Your task to perform on an android device: Open Amazon Image 0: 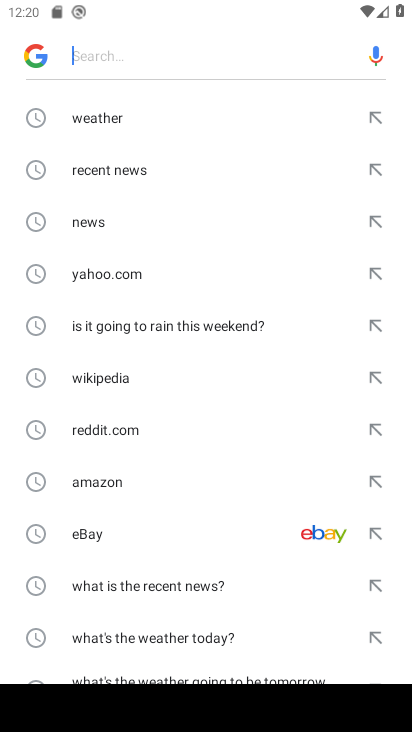
Step 0: press back button
Your task to perform on an android device: Open Amazon Image 1: 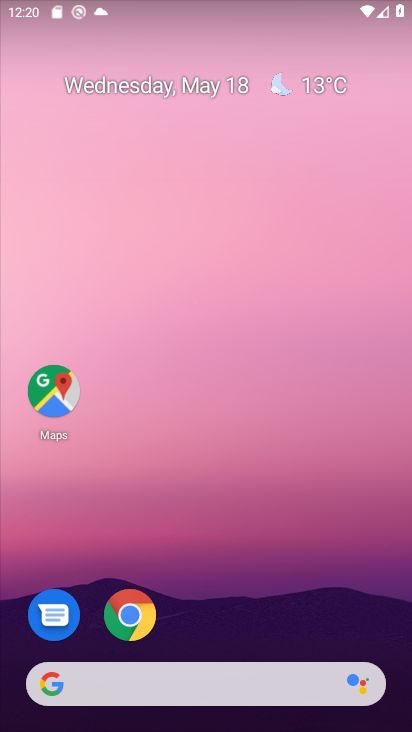
Step 1: click (136, 625)
Your task to perform on an android device: Open Amazon Image 2: 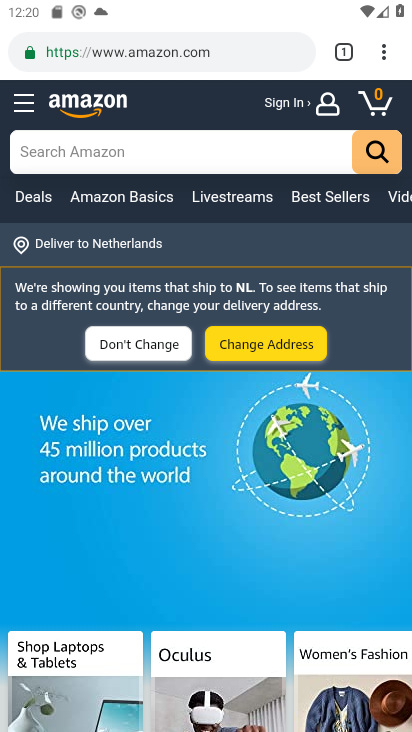
Step 2: task complete